Your task to perform on an android device: Go to eBay Image 0: 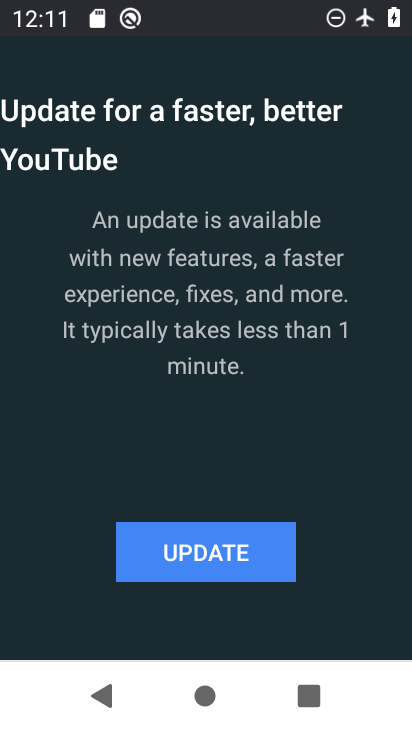
Step 0: press back button
Your task to perform on an android device: Go to eBay Image 1: 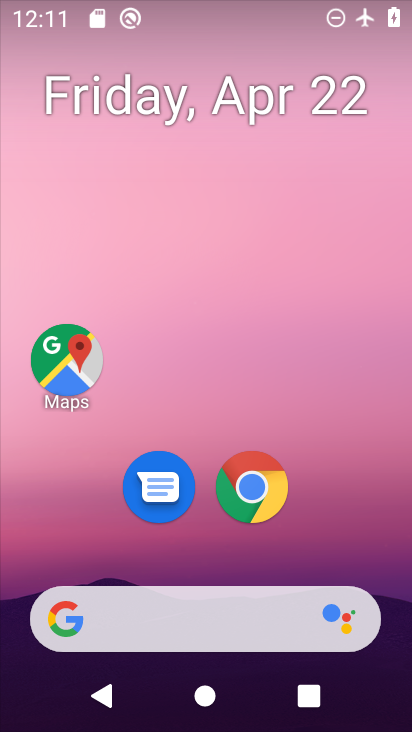
Step 1: drag from (321, 432) to (336, 147)
Your task to perform on an android device: Go to eBay Image 2: 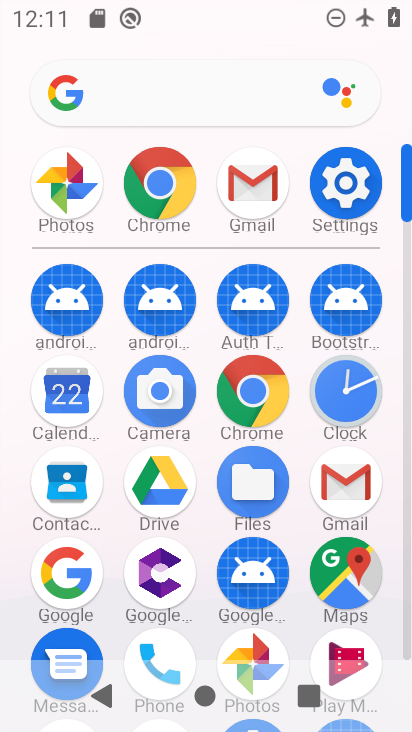
Step 2: click (159, 173)
Your task to perform on an android device: Go to eBay Image 3: 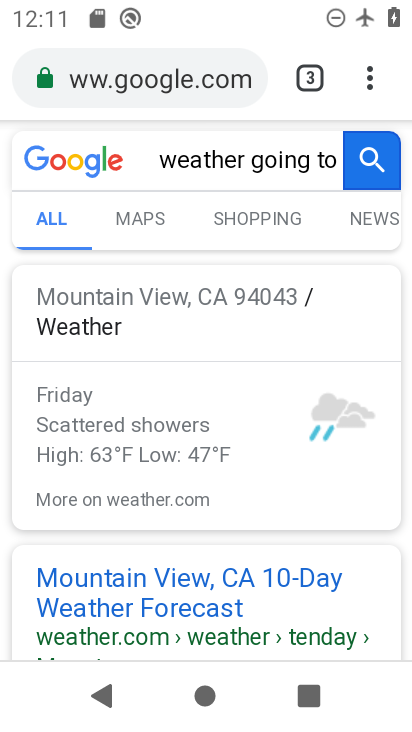
Step 3: click (353, 80)
Your task to perform on an android device: Go to eBay Image 4: 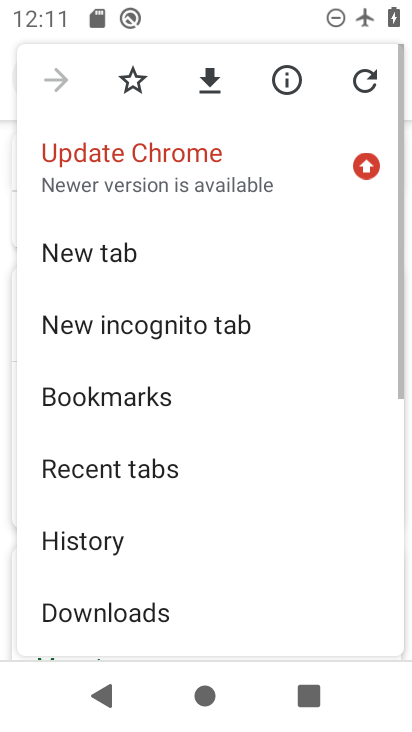
Step 4: click (160, 252)
Your task to perform on an android device: Go to eBay Image 5: 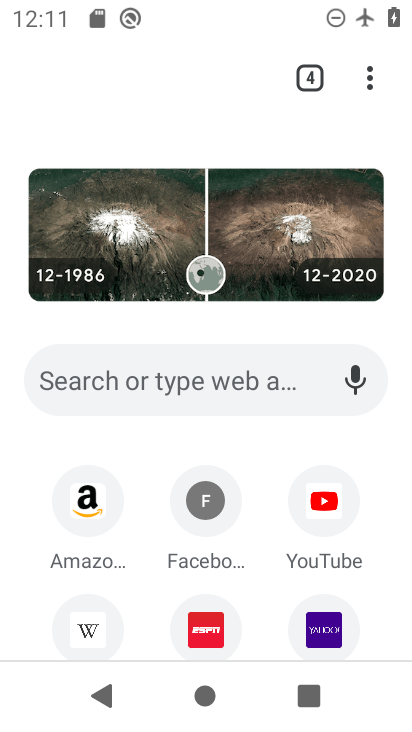
Step 5: drag from (245, 582) to (234, 394)
Your task to perform on an android device: Go to eBay Image 6: 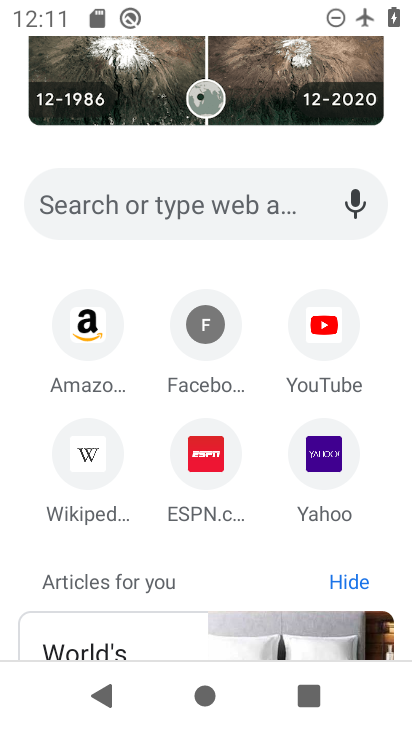
Step 6: click (276, 199)
Your task to perform on an android device: Go to eBay Image 7: 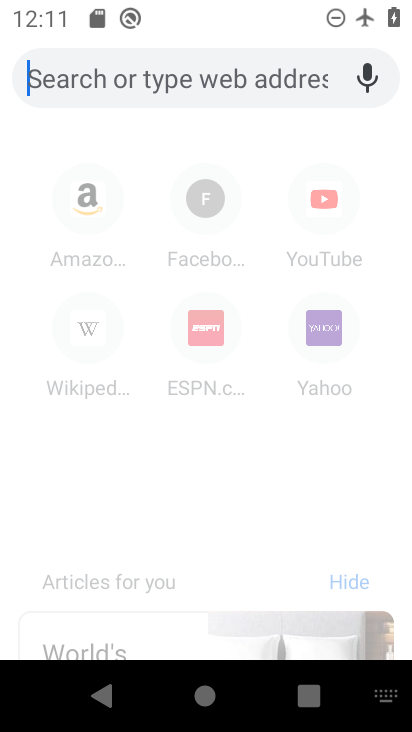
Step 7: type " eBay"
Your task to perform on an android device: Go to eBay Image 8: 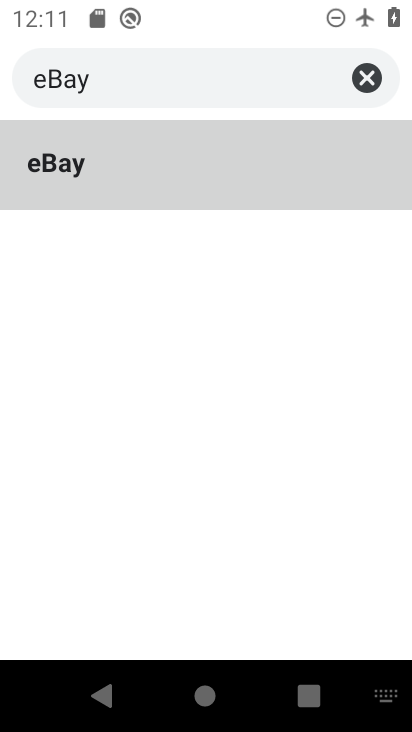
Step 8: click (120, 183)
Your task to perform on an android device: Go to eBay Image 9: 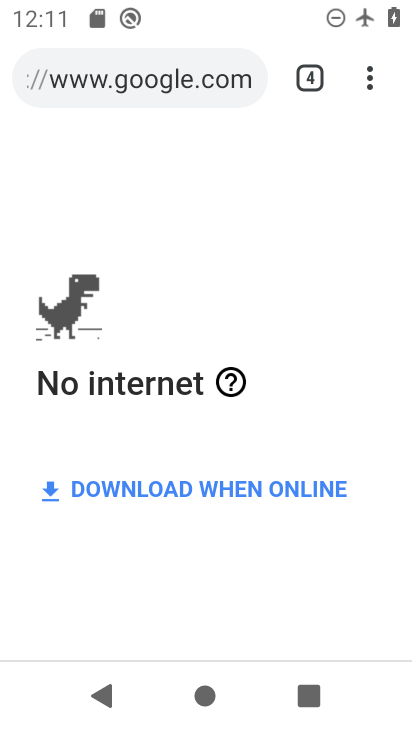
Step 9: task complete